Your task to perform on an android device: change your default location settings in chrome Image 0: 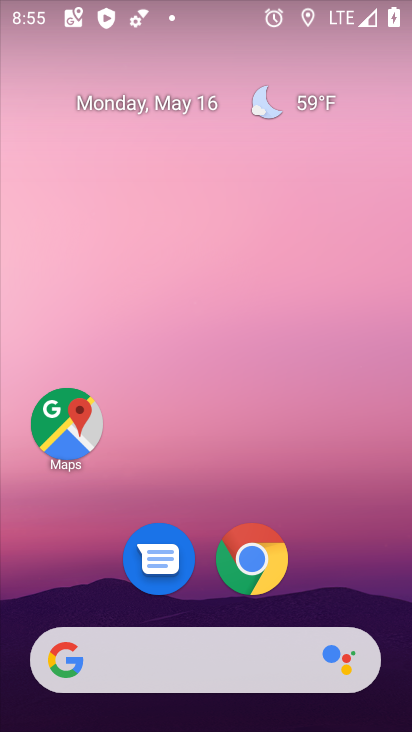
Step 0: drag from (356, 538) to (348, 151)
Your task to perform on an android device: change your default location settings in chrome Image 1: 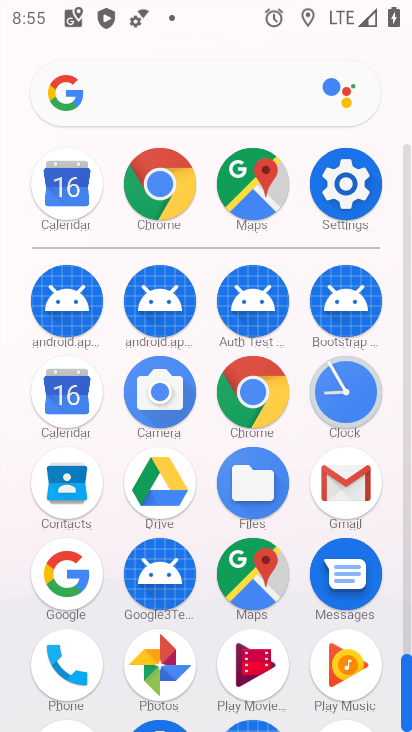
Step 1: click (259, 403)
Your task to perform on an android device: change your default location settings in chrome Image 2: 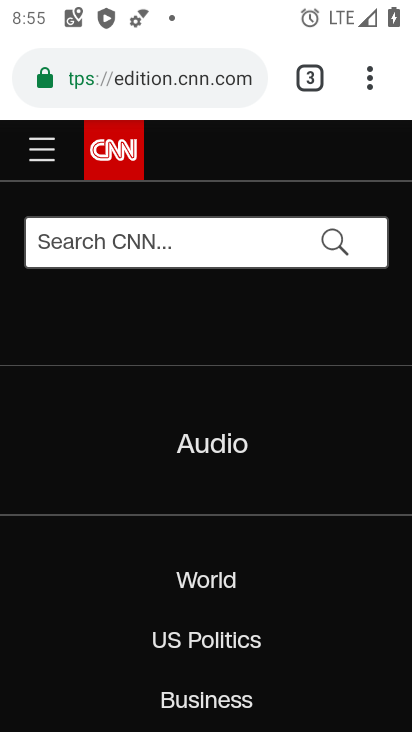
Step 2: drag from (370, 83) to (226, 617)
Your task to perform on an android device: change your default location settings in chrome Image 3: 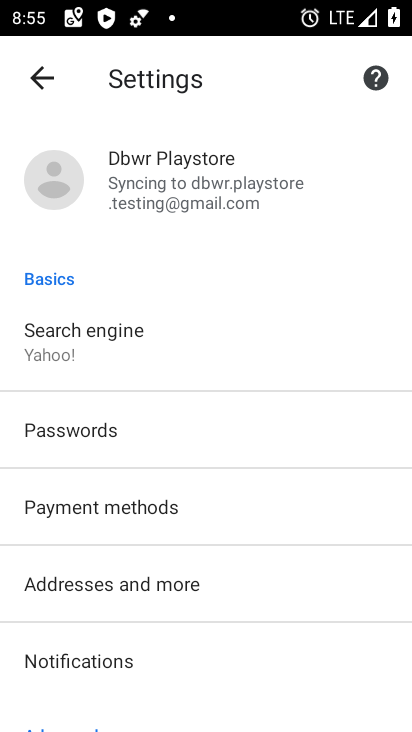
Step 3: drag from (176, 703) to (223, 393)
Your task to perform on an android device: change your default location settings in chrome Image 4: 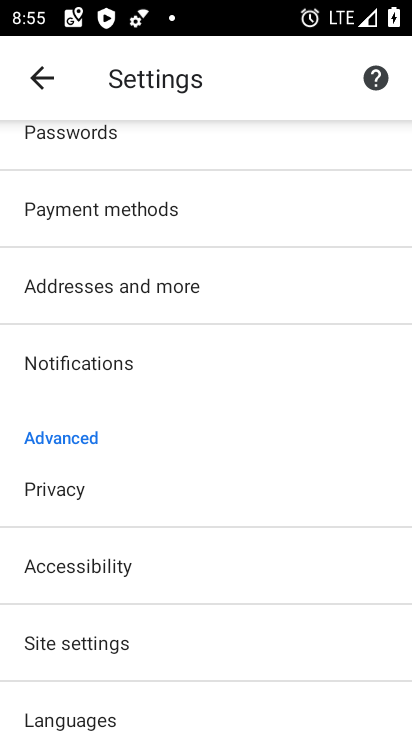
Step 4: drag from (187, 689) to (195, 495)
Your task to perform on an android device: change your default location settings in chrome Image 5: 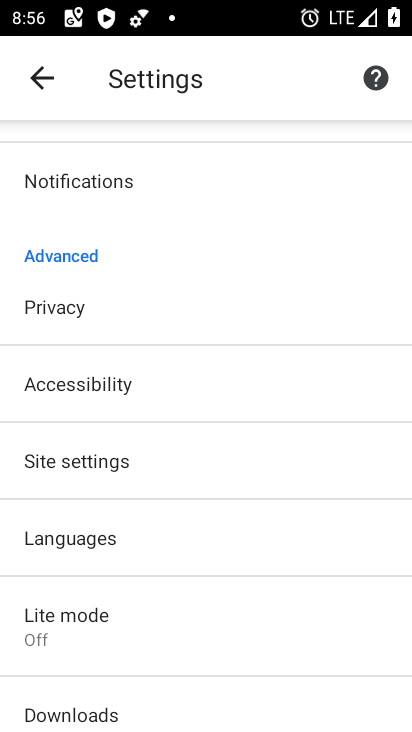
Step 5: click (147, 461)
Your task to perform on an android device: change your default location settings in chrome Image 6: 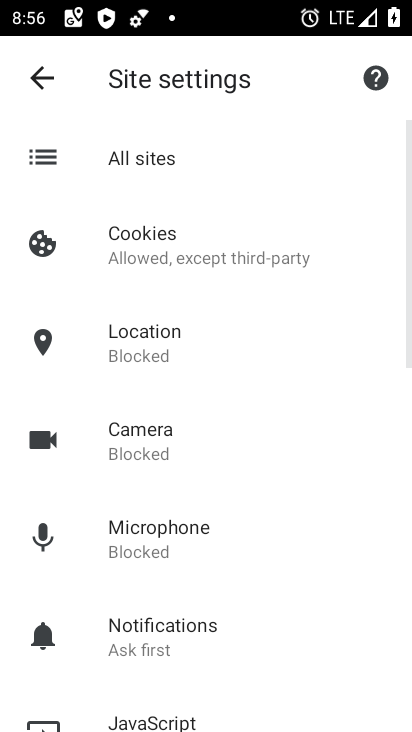
Step 6: click (173, 348)
Your task to perform on an android device: change your default location settings in chrome Image 7: 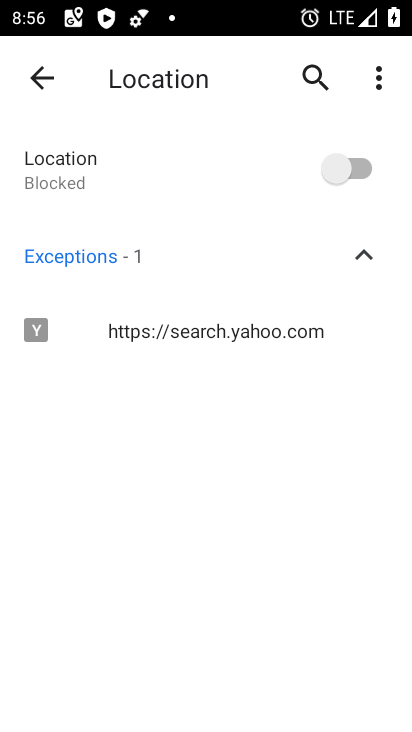
Step 7: click (357, 166)
Your task to perform on an android device: change your default location settings in chrome Image 8: 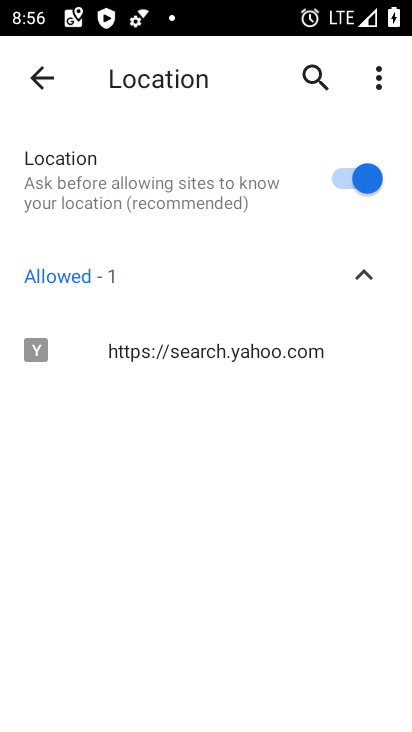
Step 8: task complete